Your task to perform on an android device: Go to accessibility settings Image 0: 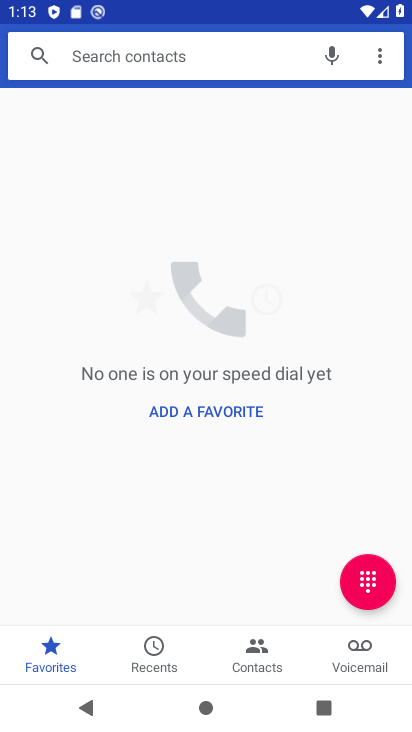
Step 0: press home button
Your task to perform on an android device: Go to accessibility settings Image 1: 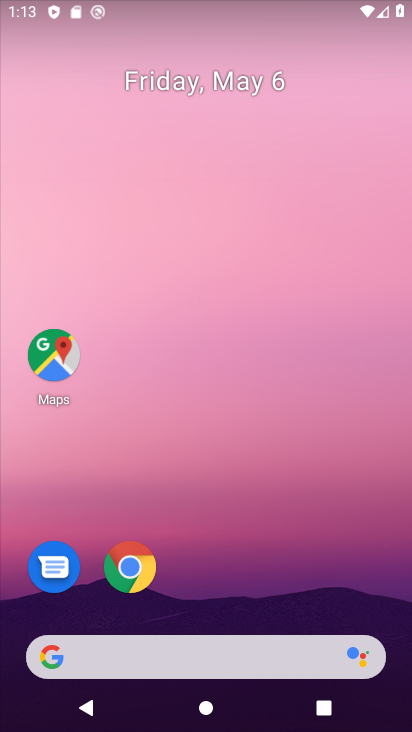
Step 1: drag from (276, 568) to (252, 99)
Your task to perform on an android device: Go to accessibility settings Image 2: 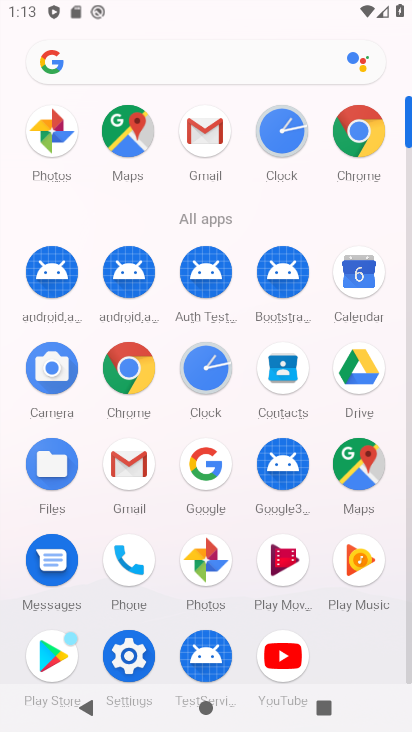
Step 2: click (126, 641)
Your task to perform on an android device: Go to accessibility settings Image 3: 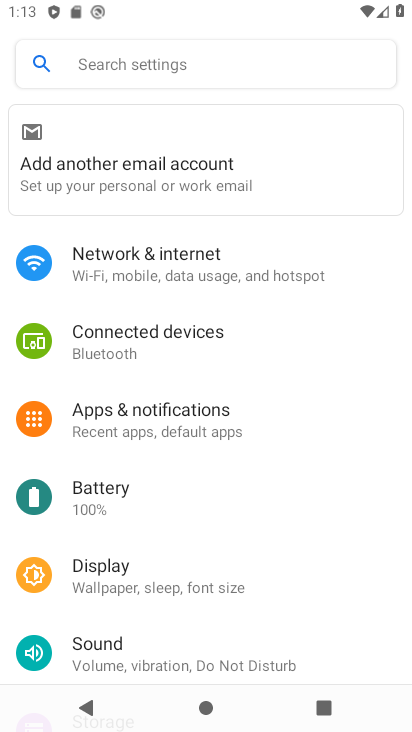
Step 3: drag from (235, 623) to (211, 228)
Your task to perform on an android device: Go to accessibility settings Image 4: 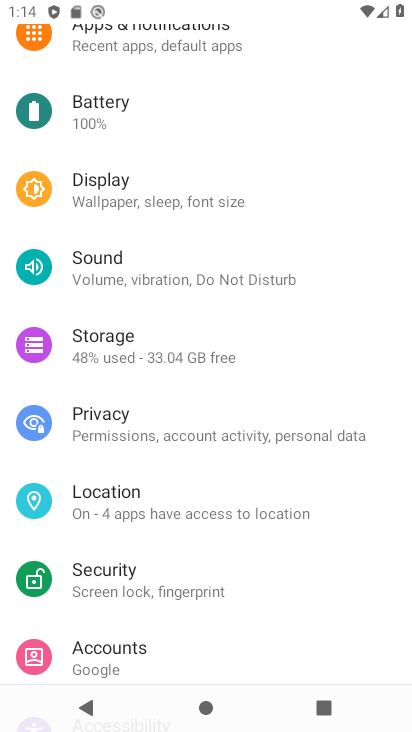
Step 4: drag from (218, 433) to (198, 63)
Your task to perform on an android device: Go to accessibility settings Image 5: 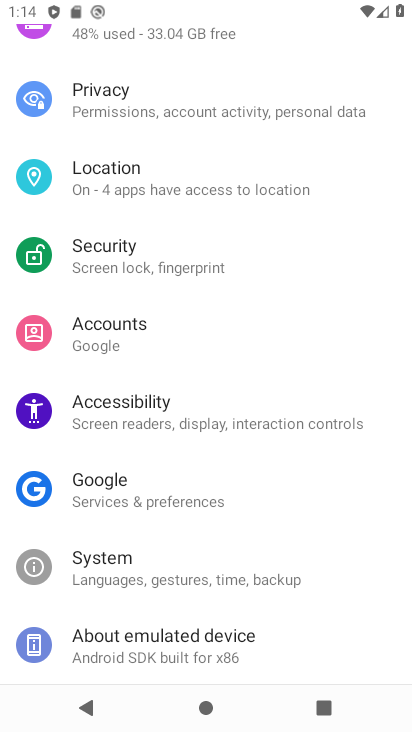
Step 5: drag from (218, 577) to (182, 165)
Your task to perform on an android device: Go to accessibility settings Image 6: 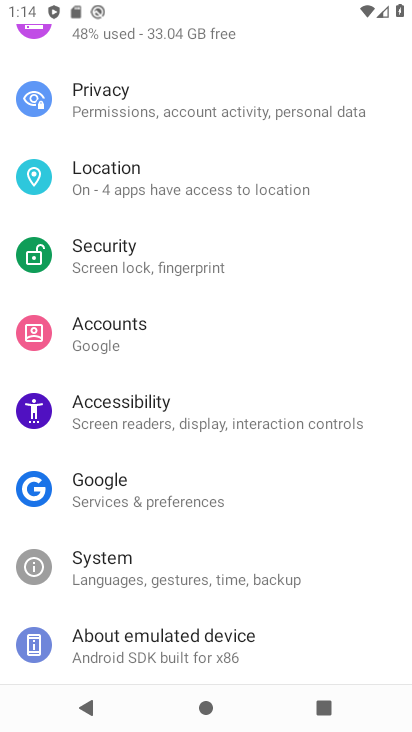
Step 6: click (152, 403)
Your task to perform on an android device: Go to accessibility settings Image 7: 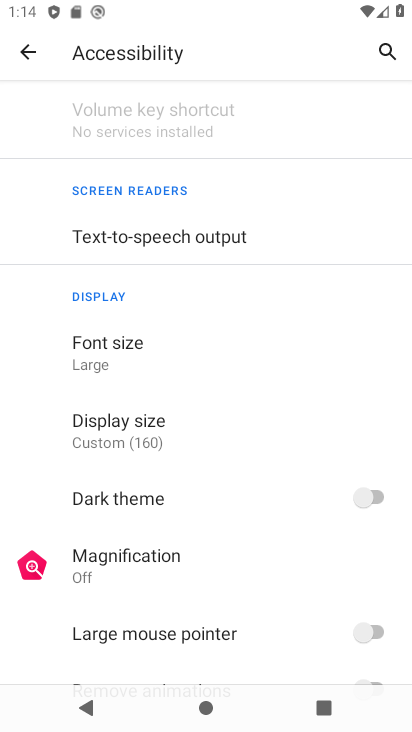
Step 7: task complete